Your task to perform on an android device: turn off priority inbox in the gmail app Image 0: 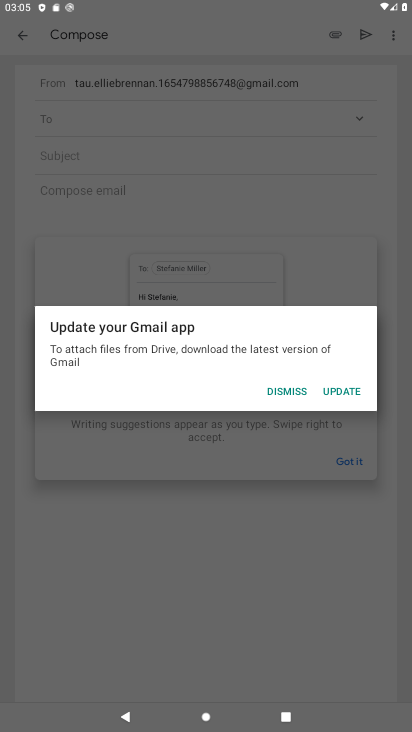
Step 0: press home button
Your task to perform on an android device: turn off priority inbox in the gmail app Image 1: 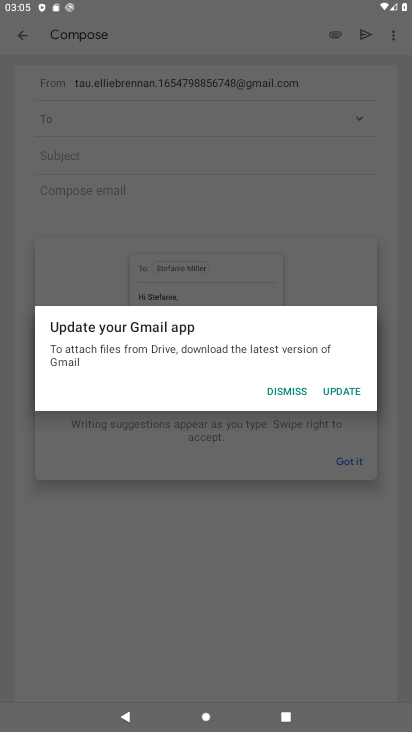
Step 1: press home button
Your task to perform on an android device: turn off priority inbox in the gmail app Image 2: 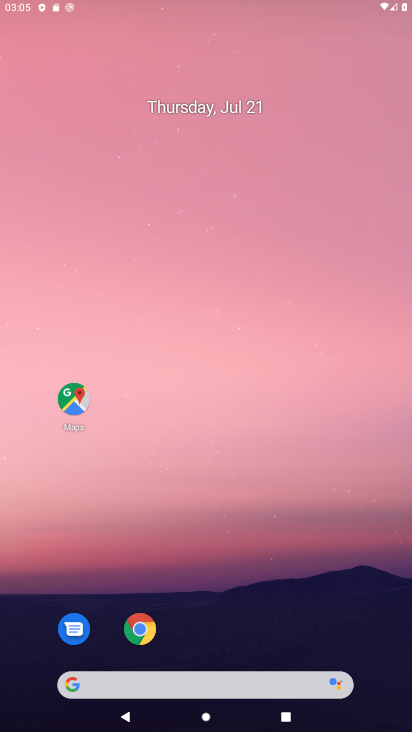
Step 2: drag from (259, 644) to (111, 2)
Your task to perform on an android device: turn off priority inbox in the gmail app Image 3: 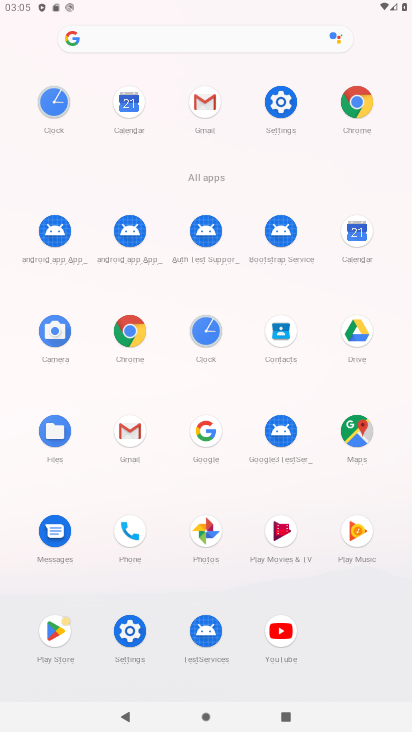
Step 3: click (203, 108)
Your task to perform on an android device: turn off priority inbox in the gmail app Image 4: 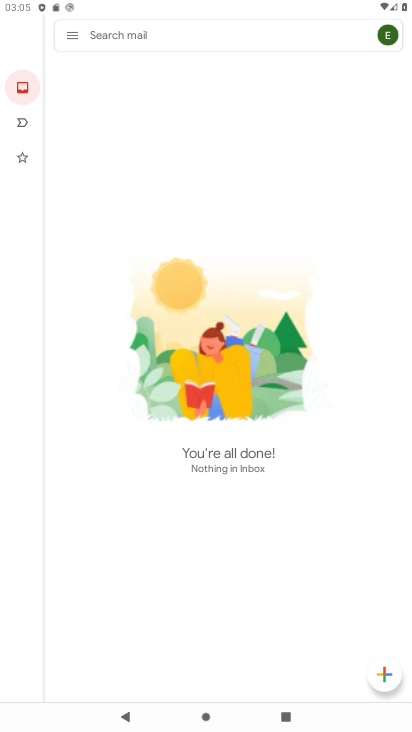
Step 4: click (65, 45)
Your task to perform on an android device: turn off priority inbox in the gmail app Image 5: 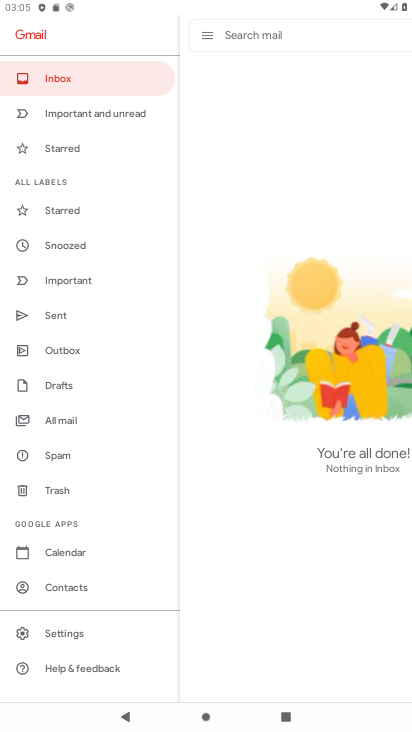
Step 5: click (65, 639)
Your task to perform on an android device: turn off priority inbox in the gmail app Image 6: 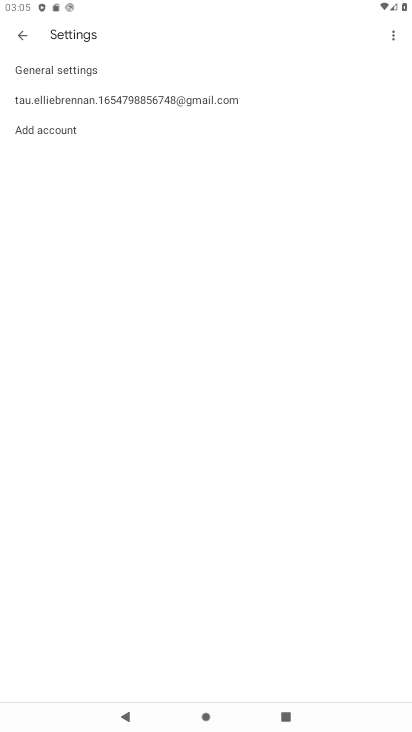
Step 6: click (113, 92)
Your task to perform on an android device: turn off priority inbox in the gmail app Image 7: 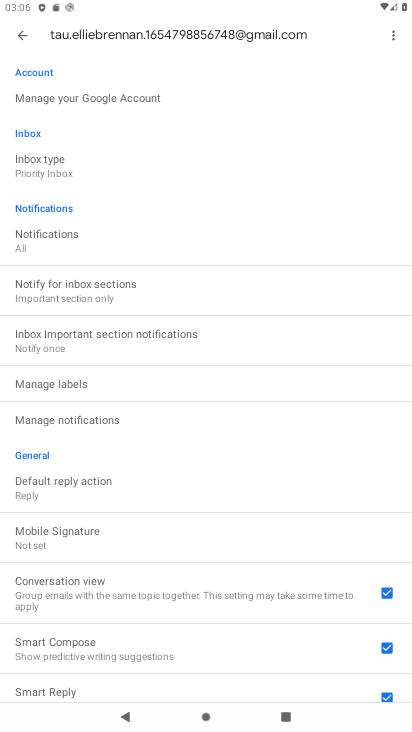
Step 7: drag from (87, 657) to (108, 237)
Your task to perform on an android device: turn off priority inbox in the gmail app Image 8: 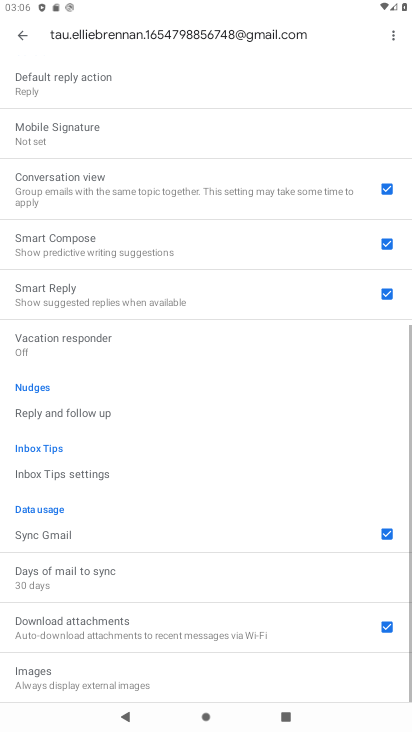
Step 8: drag from (98, 173) to (125, 489)
Your task to perform on an android device: turn off priority inbox in the gmail app Image 9: 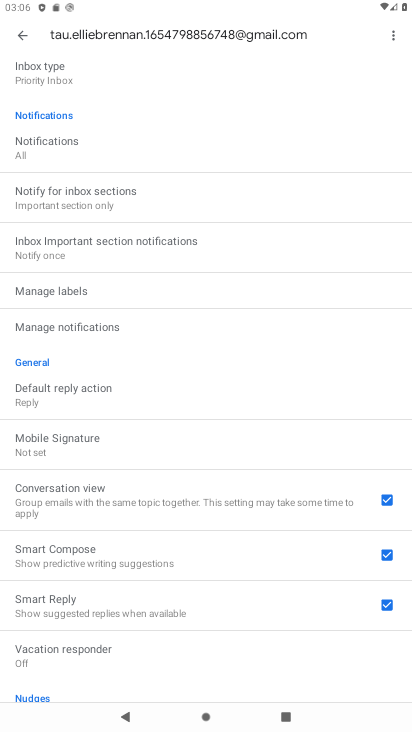
Step 9: click (79, 83)
Your task to perform on an android device: turn off priority inbox in the gmail app Image 10: 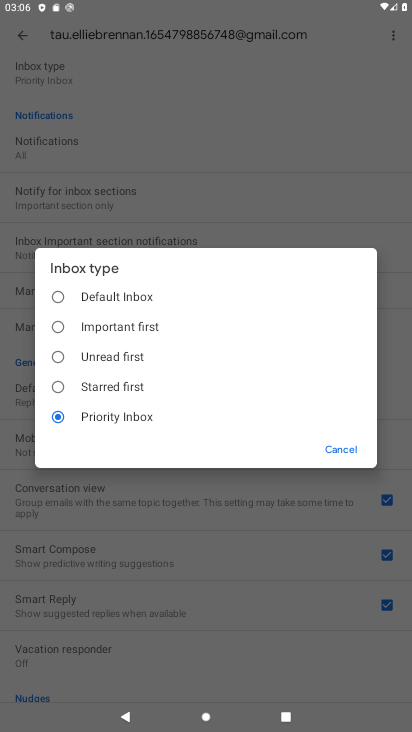
Step 10: click (75, 301)
Your task to perform on an android device: turn off priority inbox in the gmail app Image 11: 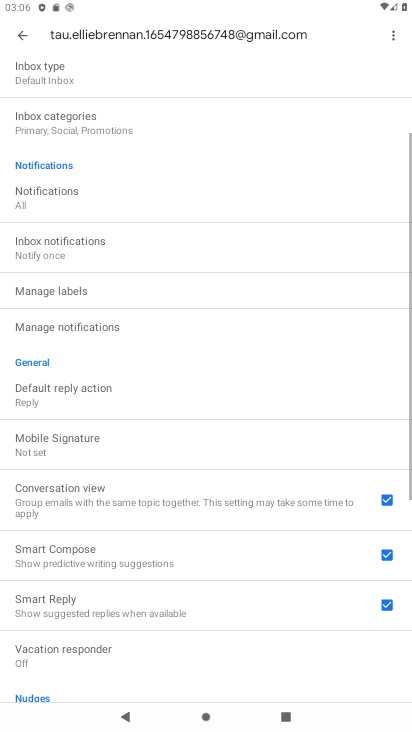
Step 11: task complete